Your task to perform on an android device: What's the news in Taiwan? Image 0: 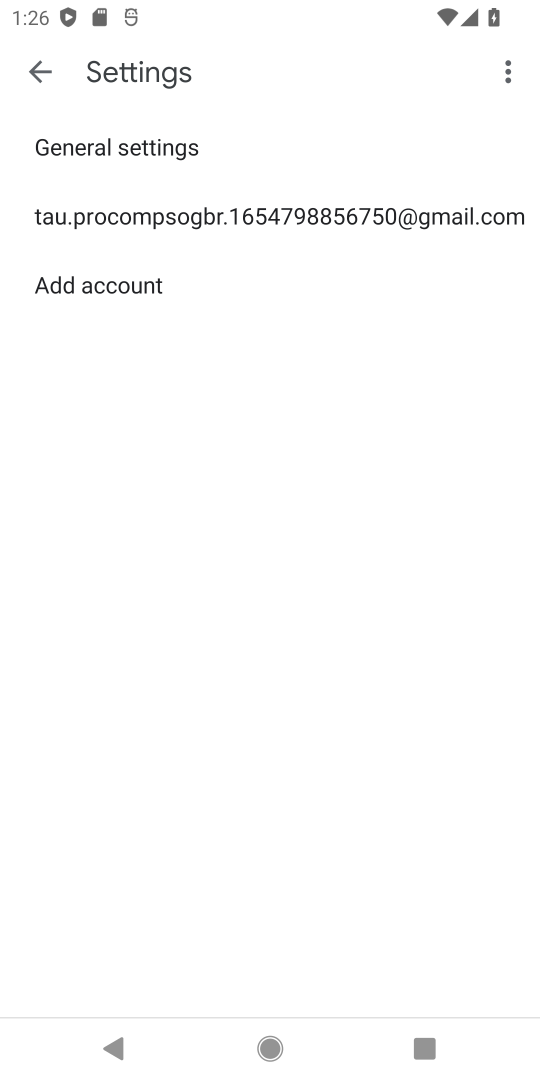
Step 0: press home button
Your task to perform on an android device: What's the news in Taiwan? Image 1: 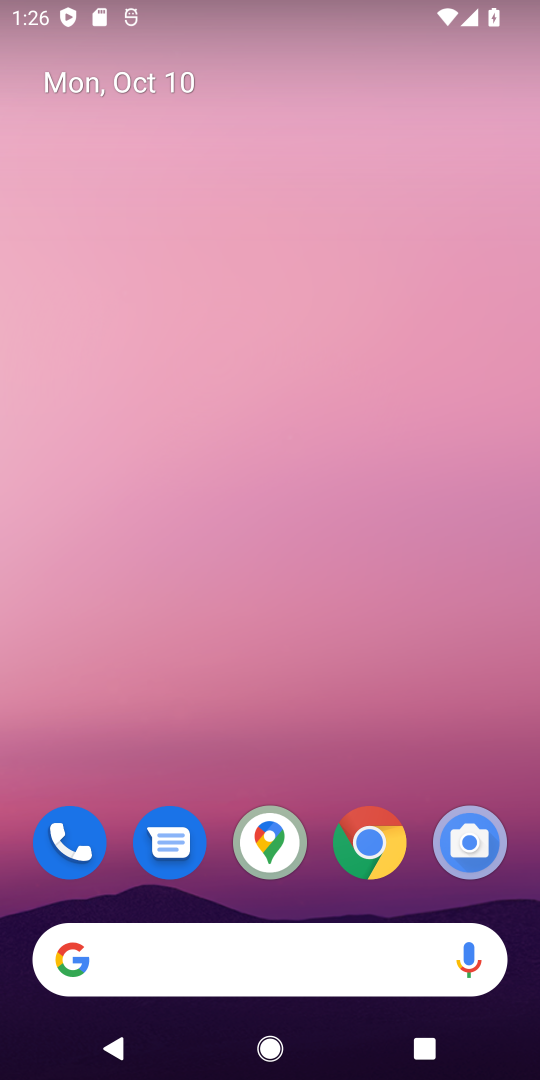
Step 1: click (368, 858)
Your task to perform on an android device: What's the news in Taiwan? Image 2: 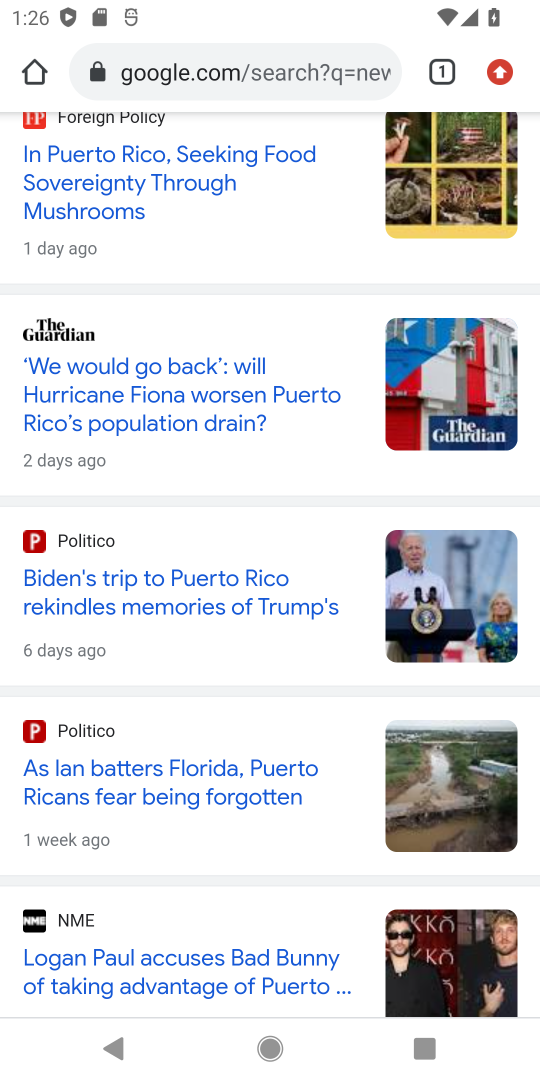
Step 2: click (284, 76)
Your task to perform on an android device: What's the news in Taiwan? Image 3: 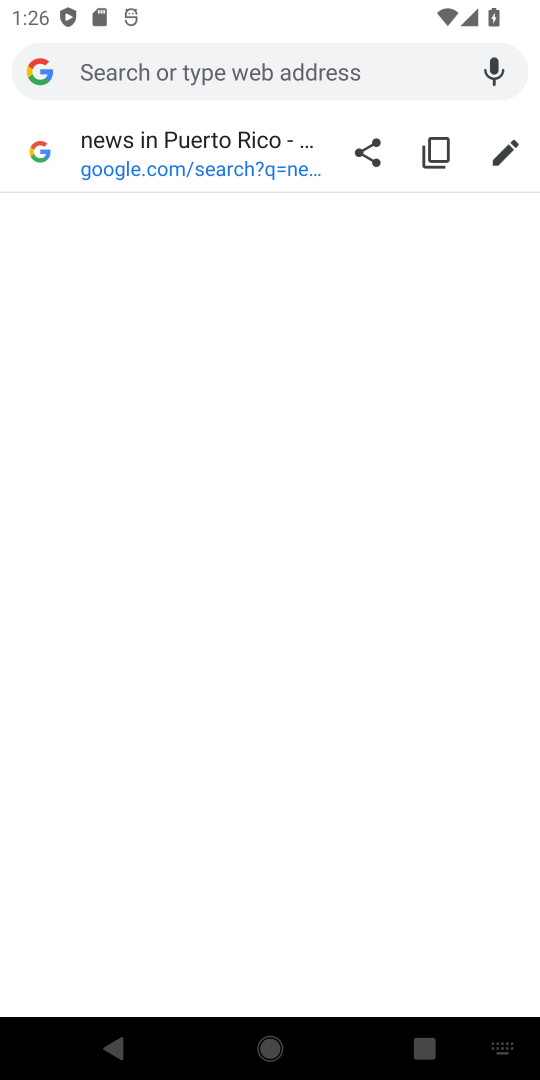
Step 3: type "news in Taiwan"
Your task to perform on an android device: What's the news in Taiwan? Image 4: 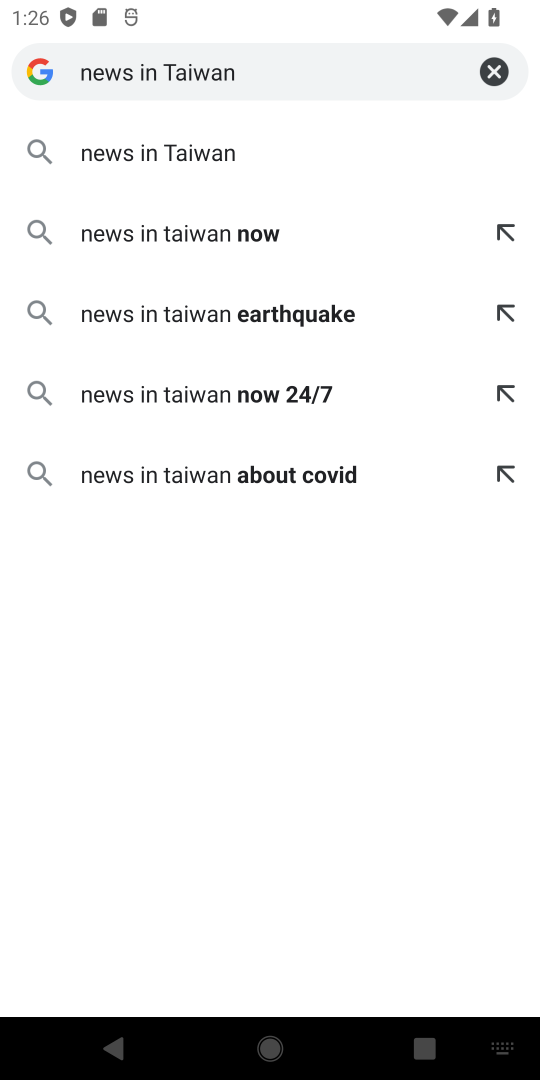
Step 4: press enter
Your task to perform on an android device: What's the news in Taiwan? Image 5: 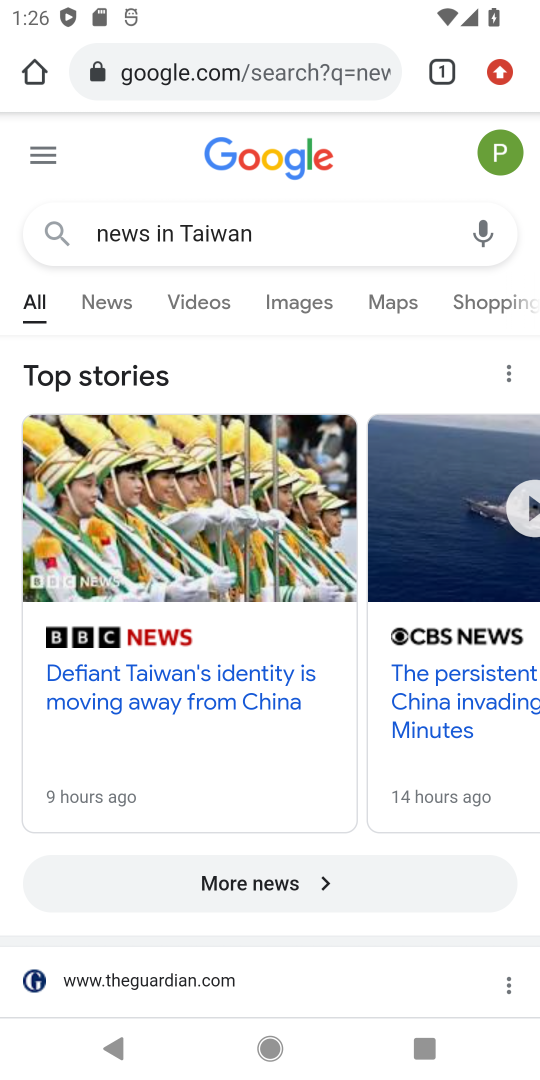
Step 5: click (115, 297)
Your task to perform on an android device: What's the news in Taiwan? Image 6: 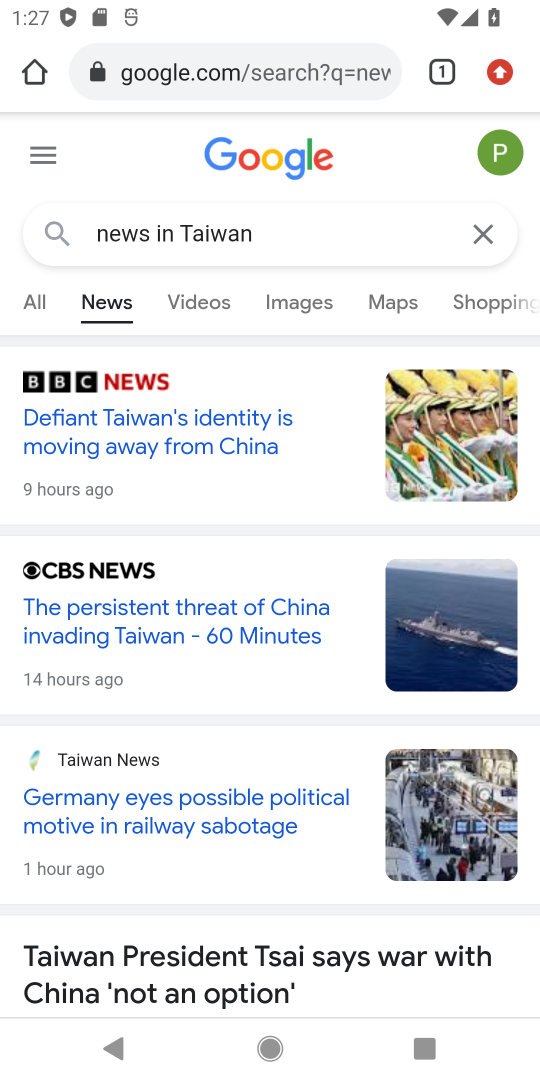
Step 6: task complete